Your task to perform on an android device: install app "Microsoft Outlook" Image 0: 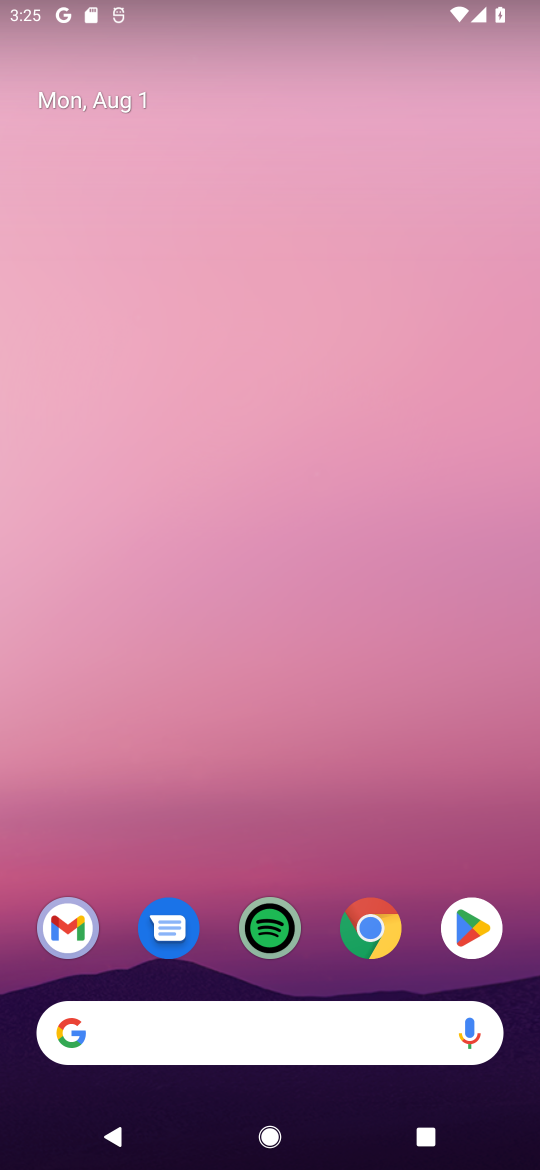
Step 0: click (475, 930)
Your task to perform on an android device: install app "Microsoft Outlook" Image 1: 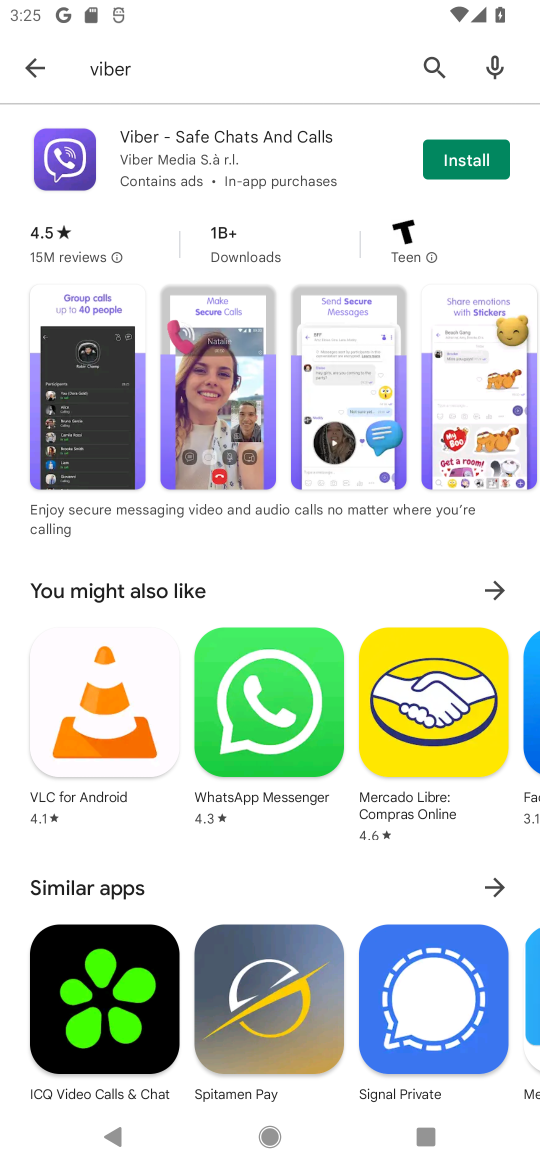
Step 1: click (427, 76)
Your task to perform on an android device: install app "Microsoft Outlook" Image 2: 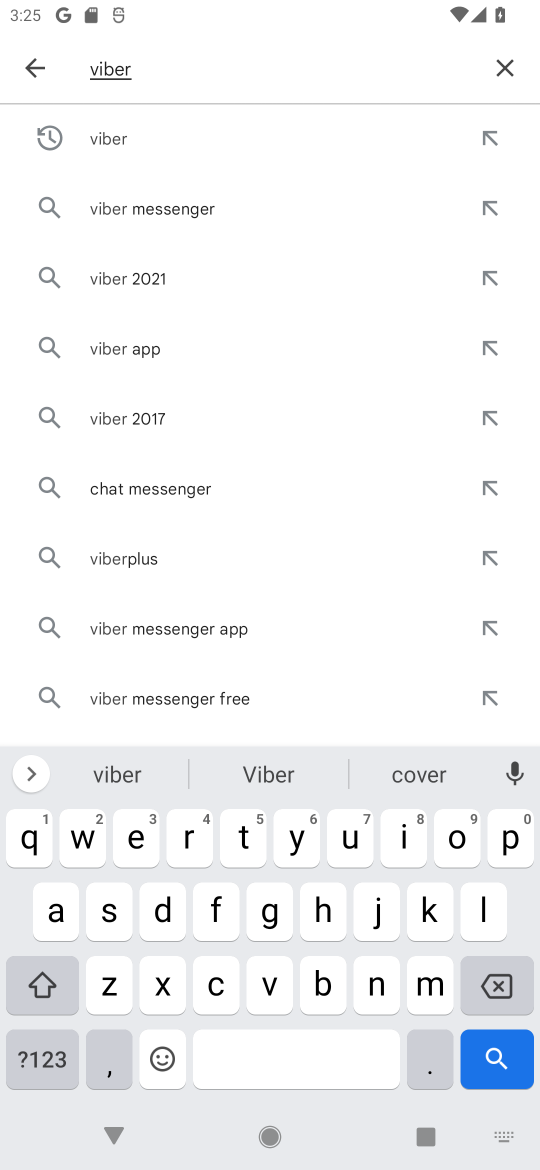
Step 2: click (511, 63)
Your task to perform on an android device: install app "Microsoft Outlook" Image 3: 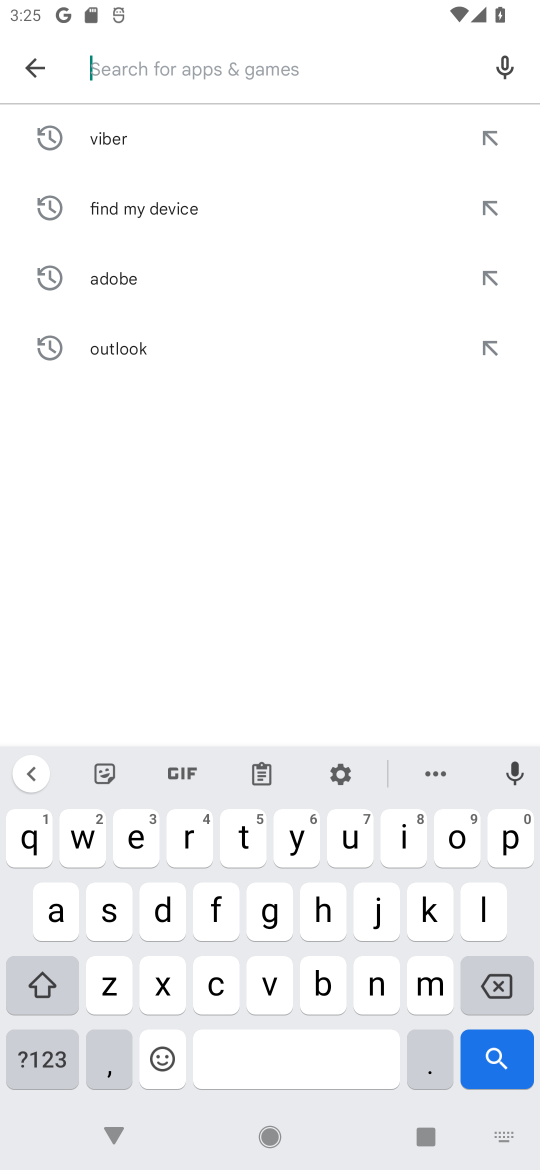
Step 3: click (180, 356)
Your task to perform on an android device: install app "Microsoft Outlook" Image 4: 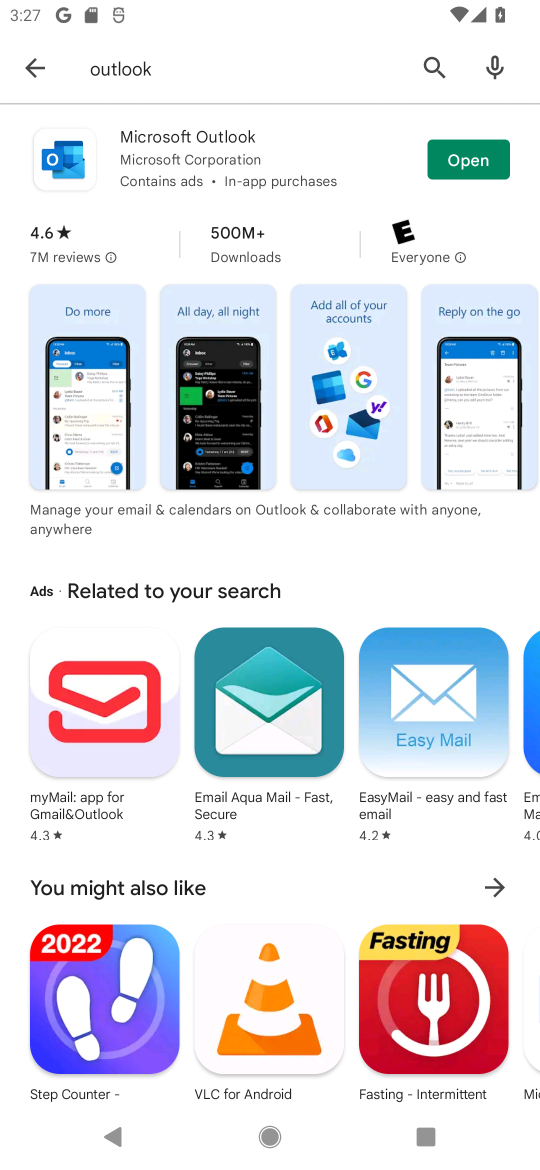
Step 4: task complete